Your task to perform on an android device: delete location history Image 0: 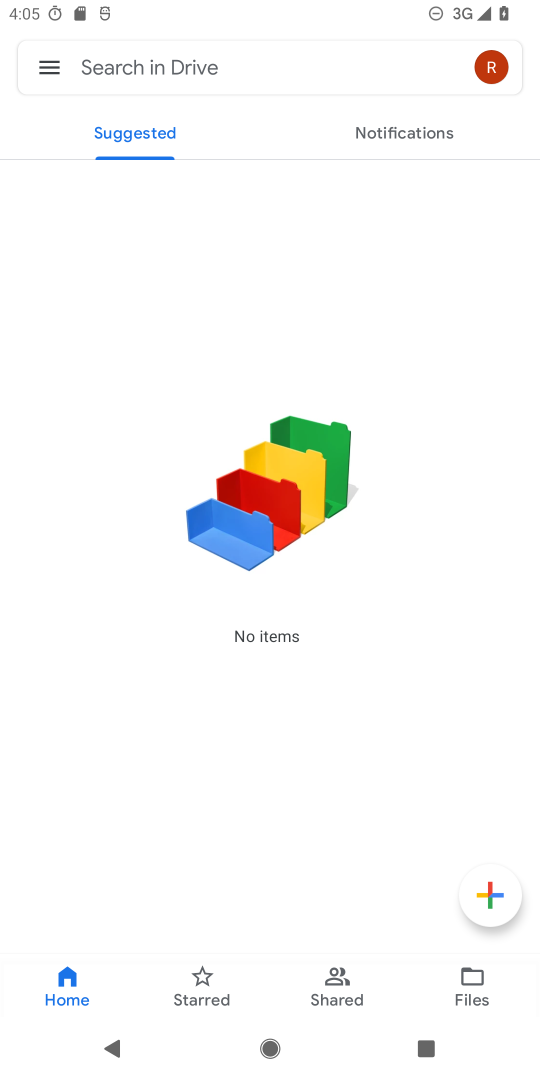
Step 0: press home button
Your task to perform on an android device: delete location history Image 1: 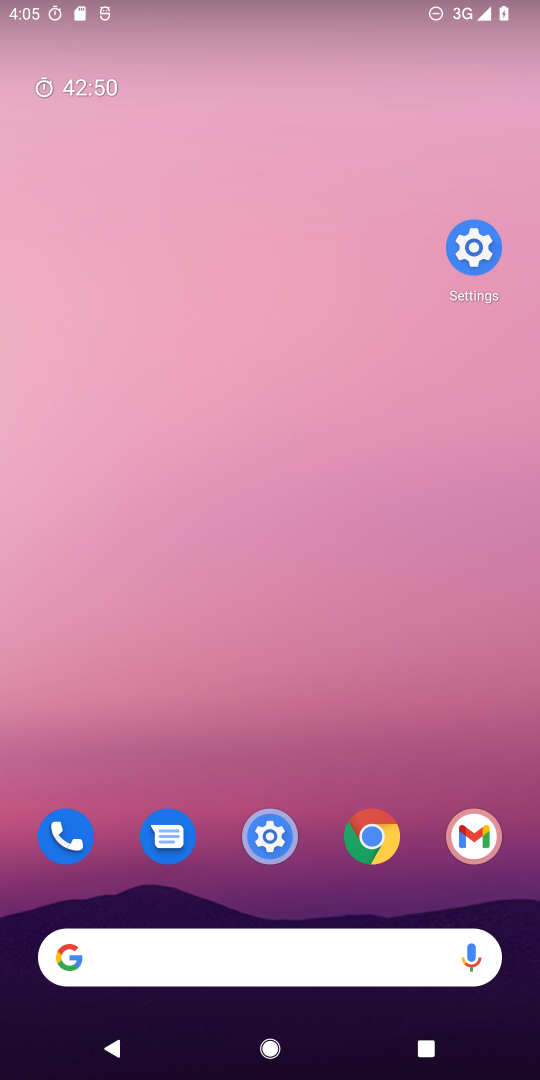
Step 1: drag from (310, 848) to (320, 22)
Your task to perform on an android device: delete location history Image 2: 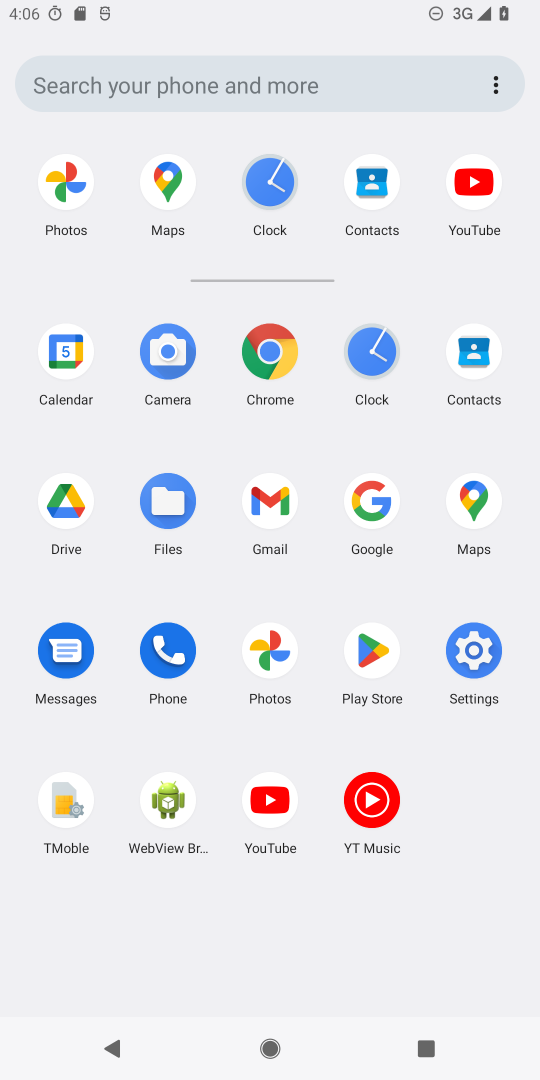
Step 2: click (488, 548)
Your task to perform on an android device: delete location history Image 3: 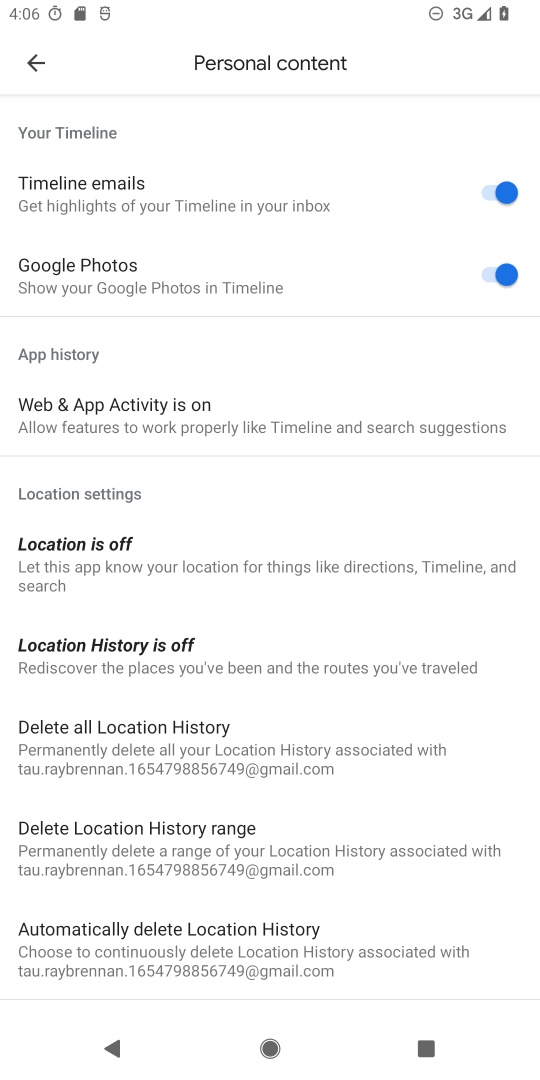
Step 3: click (147, 755)
Your task to perform on an android device: delete location history Image 4: 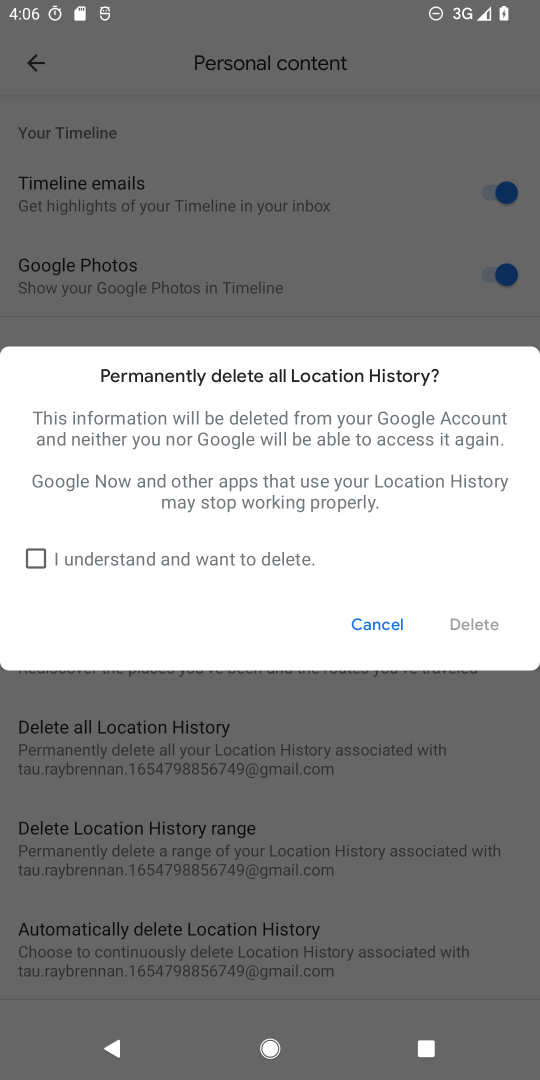
Step 4: click (108, 553)
Your task to perform on an android device: delete location history Image 5: 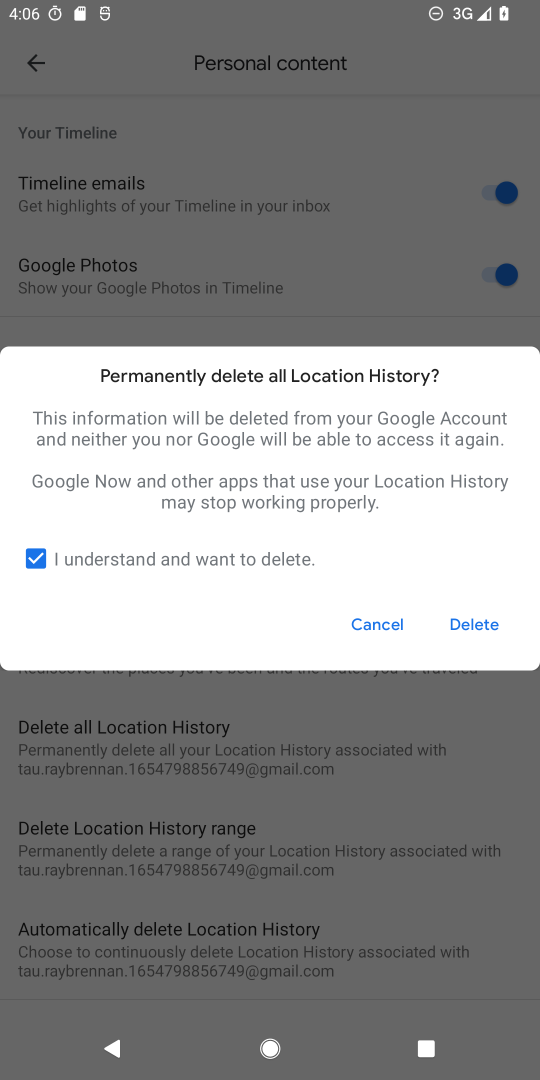
Step 5: click (469, 618)
Your task to perform on an android device: delete location history Image 6: 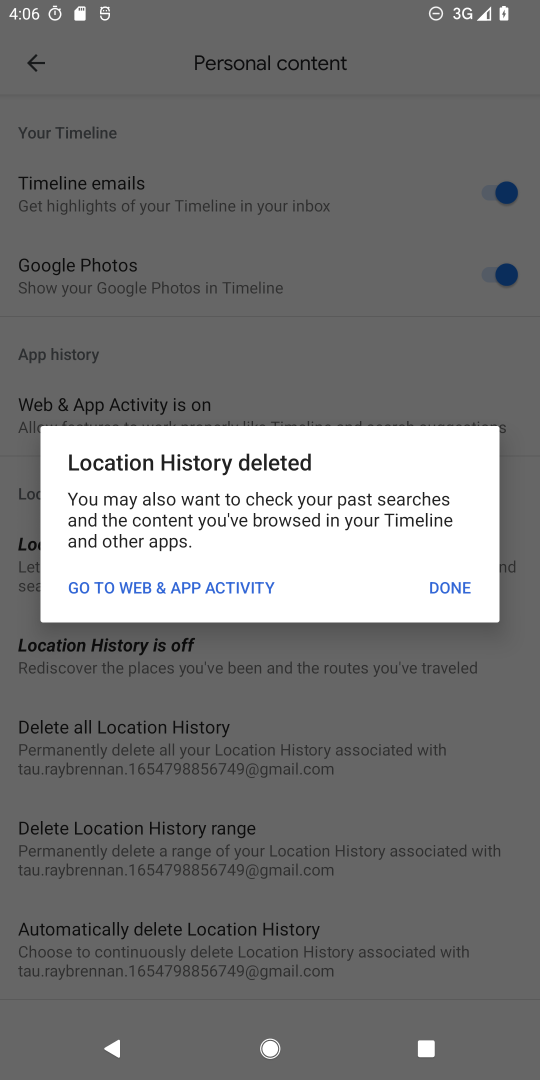
Step 6: click (448, 573)
Your task to perform on an android device: delete location history Image 7: 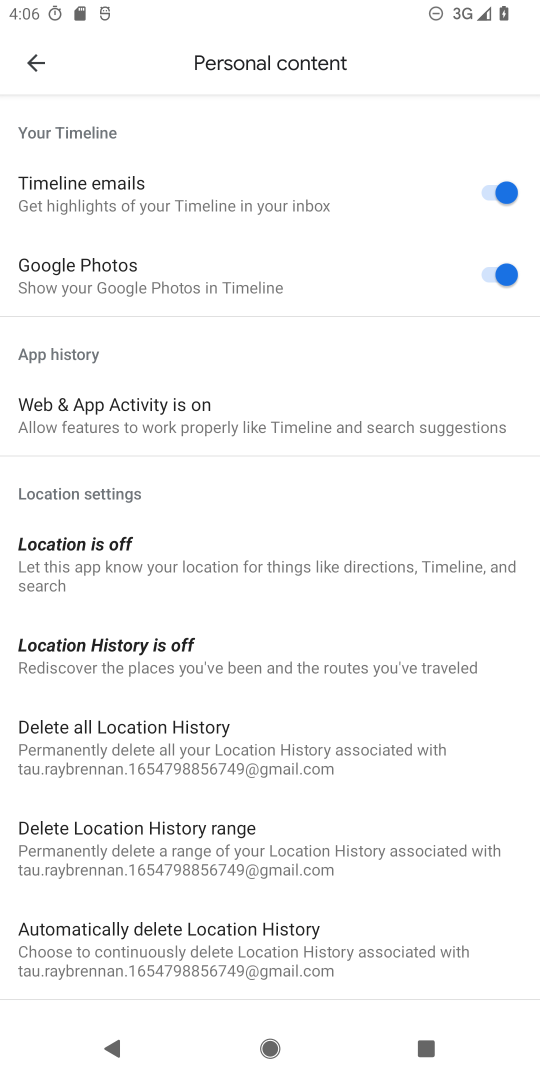
Step 7: task complete